Your task to perform on an android device: turn pop-ups off in chrome Image 0: 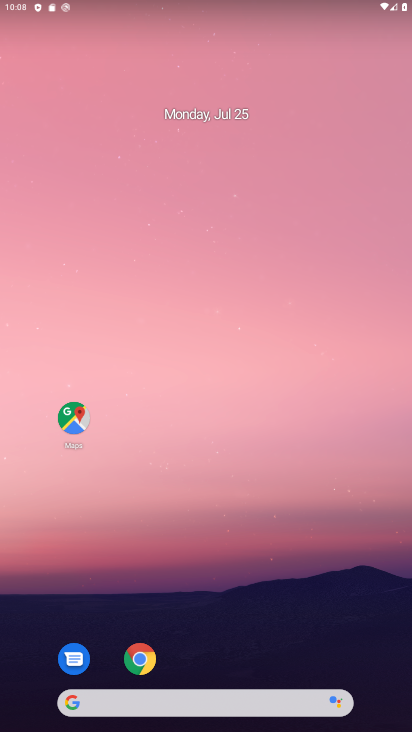
Step 0: drag from (195, 666) to (177, 102)
Your task to perform on an android device: turn pop-ups off in chrome Image 1: 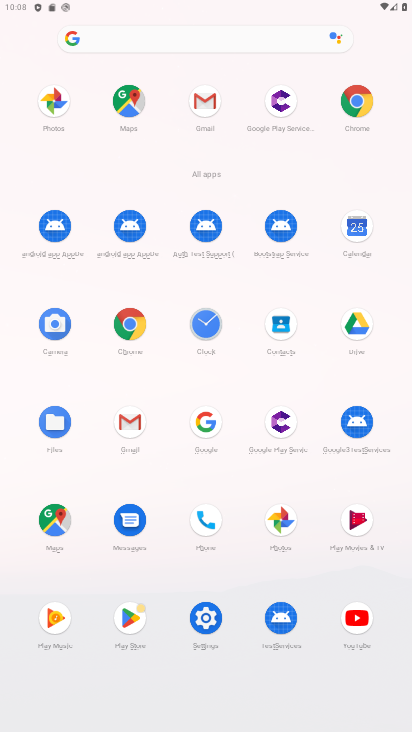
Step 1: click (135, 333)
Your task to perform on an android device: turn pop-ups off in chrome Image 2: 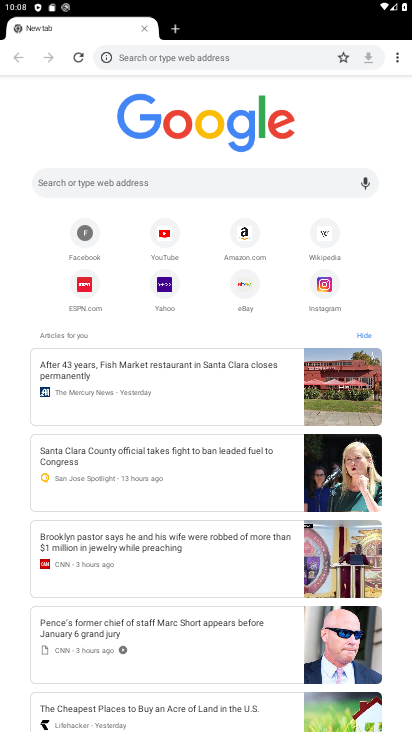
Step 2: drag from (397, 60) to (275, 301)
Your task to perform on an android device: turn pop-ups off in chrome Image 3: 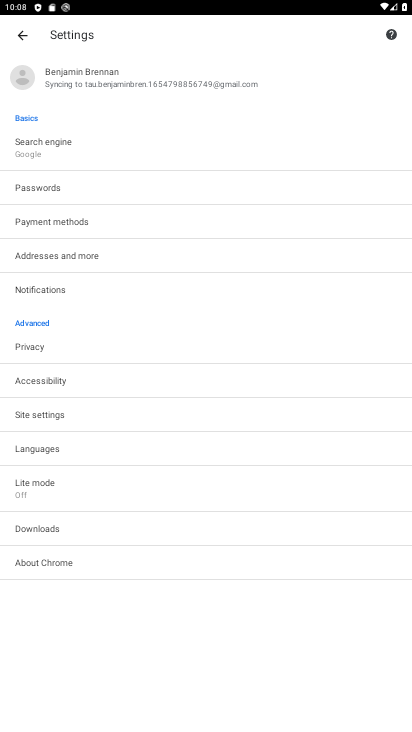
Step 3: click (32, 410)
Your task to perform on an android device: turn pop-ups off in chrome Image 4: 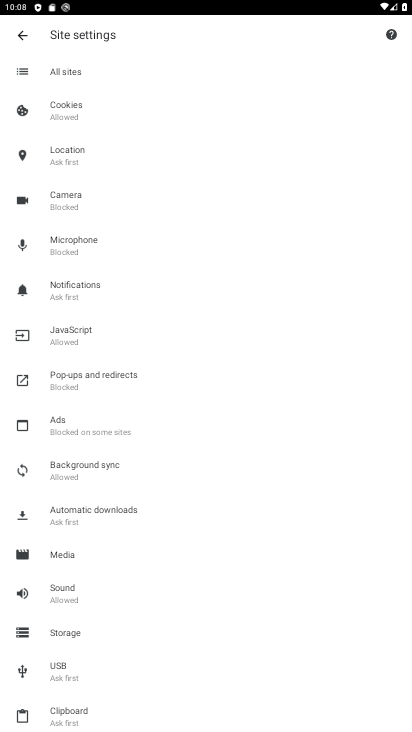
Step 4: click (60, 374)
Your task to perform on an android device: turn pop-ups off in chrome Image 5: 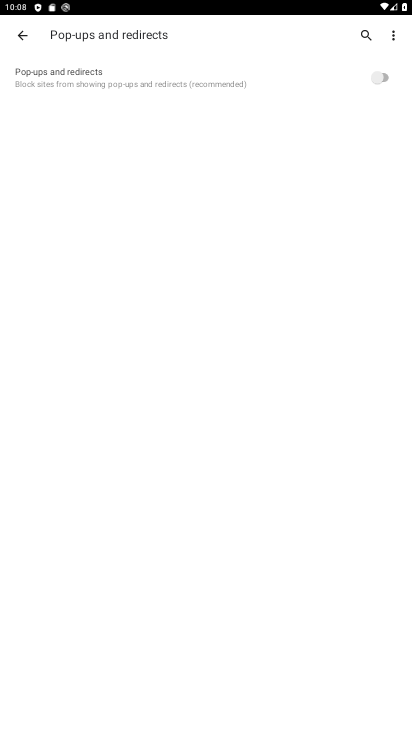
Step 5: task complete